Your task to perform on an android device: open chrome and create a bookmark for the current page Image 0: 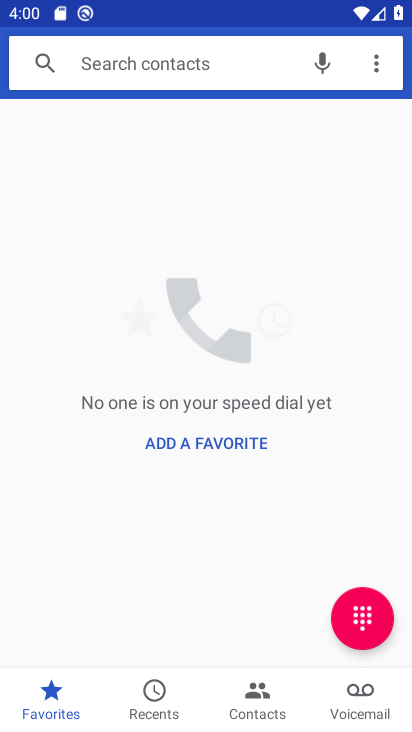
Step 0: press home button
Your task to perform on an android device: open chrome and create a bookmark for the current page Image 1: 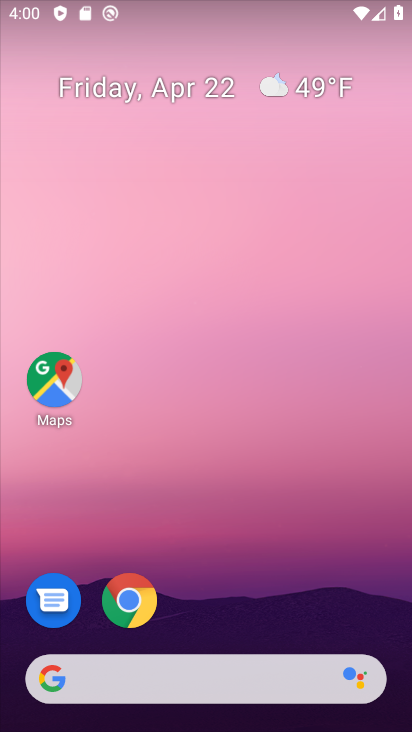
Step 1: click (130, 598)
Your task to perform on an android device: open chrome and create a bookmark for the current page Image 2: 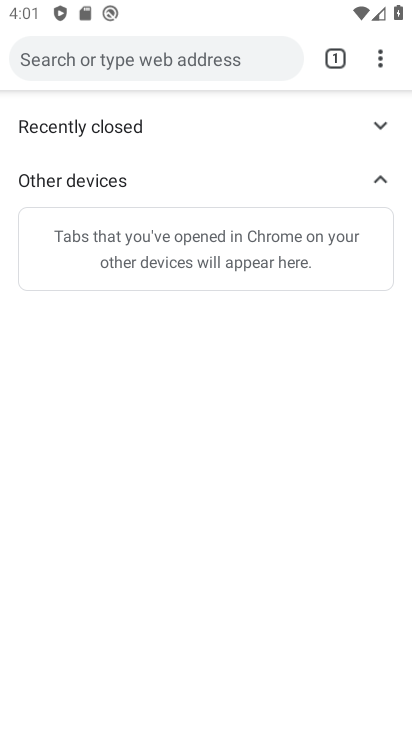
Step 2: click (390, 55)
Your task to perform on an android device: open chrome and create a bookmark for the current page Image 3: 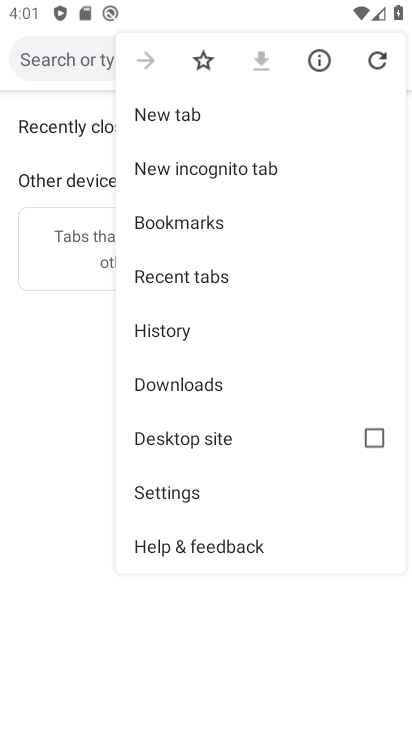
Step 3: click (205, 62)
Your task to perform on an android device: open chrome and create a bookmark for the current page Image 4: 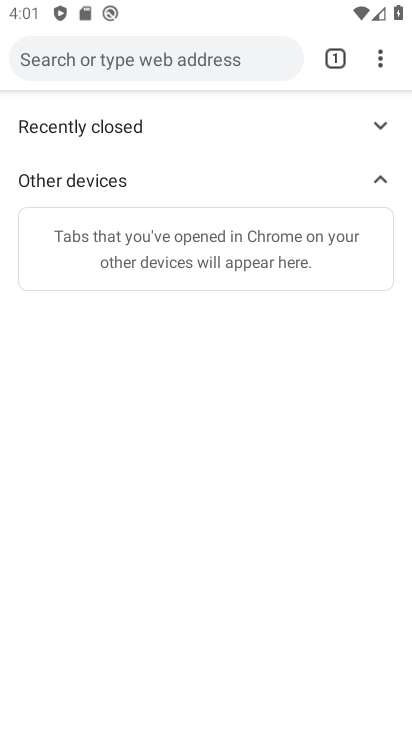
Step 4: task complete